Your task to perform on an android device: open a new tab in the chrome app Image 0: 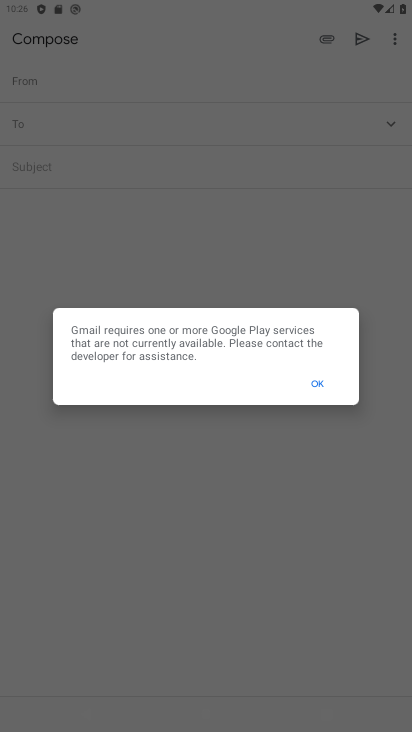
Step 0: drag from (239, 638) to (412, 396)
Your task to perform on an android device: open a new tab in the chrome app Image 1: 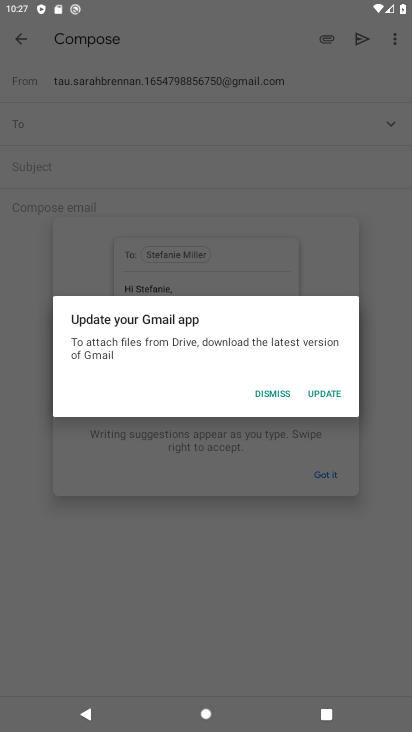
Step 1: press home button
Your task to perform on an android device: open a new tab in the chrome app Image 2: 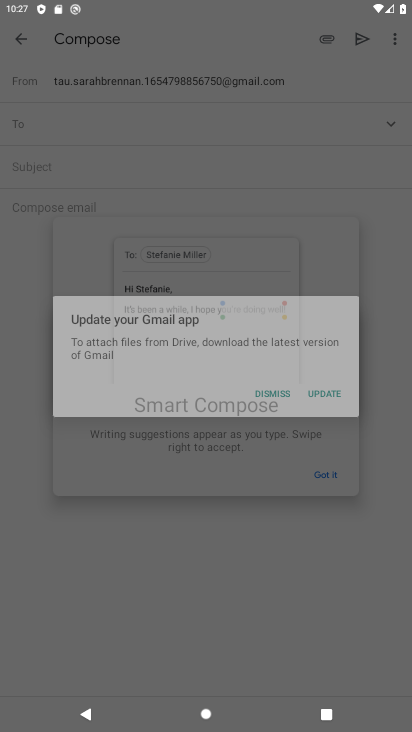
Step 2: drag from (412, 396) to (379, 415)
Your task to perform on an android device: open a new tab in the chrome app Image 3: 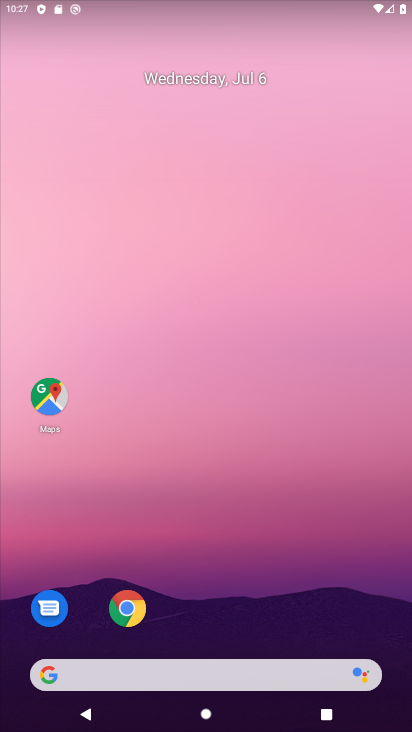
Step 3: click (128, 613)
Your task to perform on an android device: open a new tab in the chrome app Image 4: 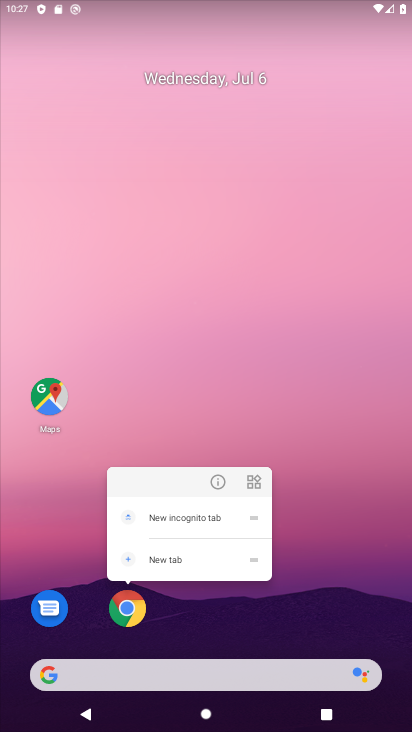
Step 4: click (129, 607)
Your task to perform on an android device: open a new tab in the chrome app Image 5: 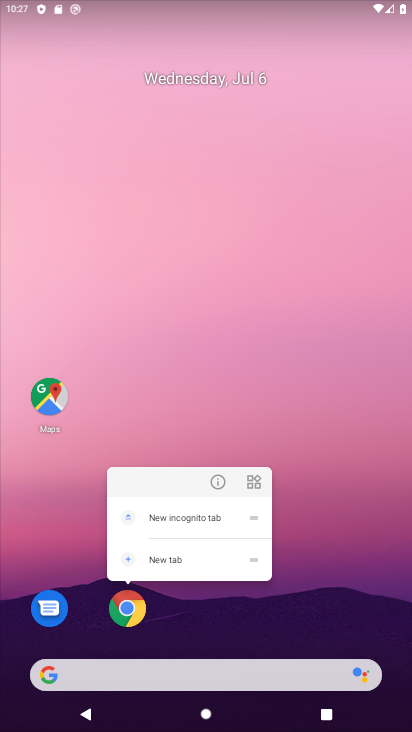
Step 5: click (122, 624)
Your task to perform on an android device: open a new tab in the chrome app Image 6: 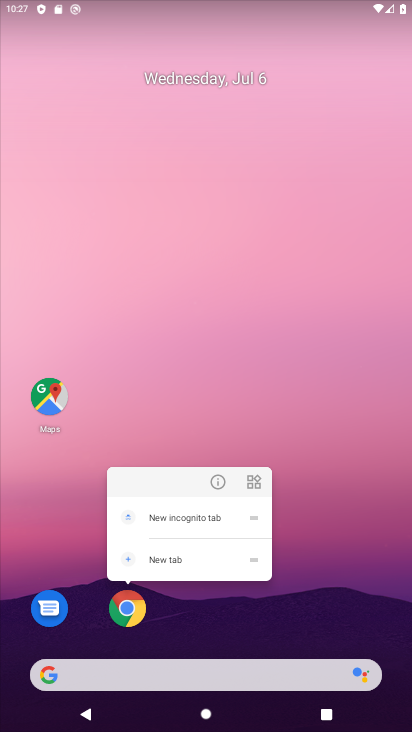
Step 6: click (126, 621)
Your task to perform on an android device: open a new tab in the chrome app Image 7: 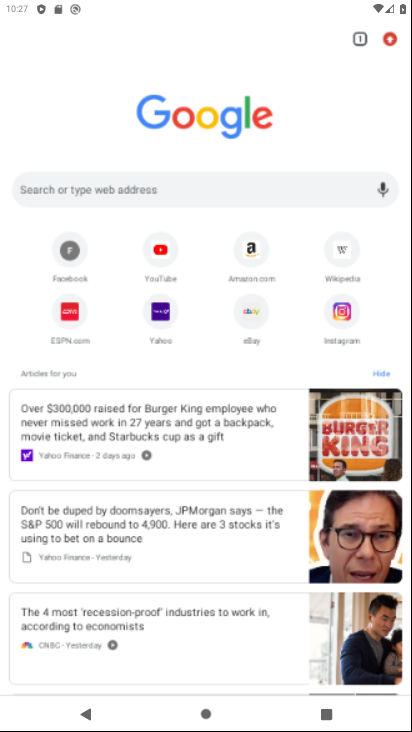
Step 7: click (130, 615)
Your task to perform on an android device: open a new tab in the chrome app Image 8: 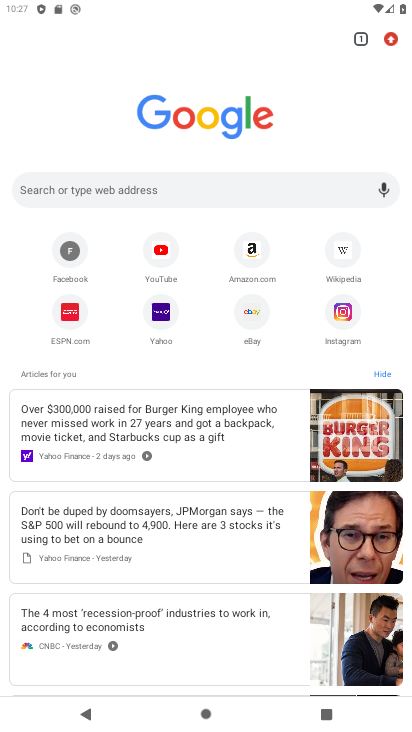
Step 8: task complete